Your task to perform on an android device: Go to calendar. Show me events next week Image 0: 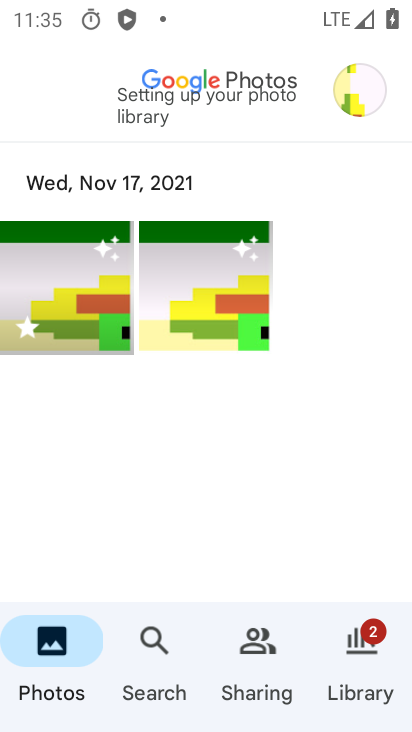
Step 0: press home button
Your task to perform on an android device: Go to calendar. Show me events next week Image 1: 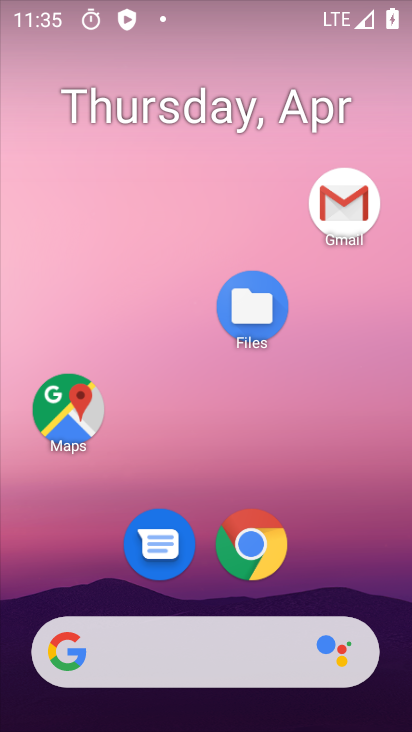
Step 1: drag from (227, 474) to (232, 35)
Your task to perform on an android device: Go to calendar. Show me events next week Image 2: 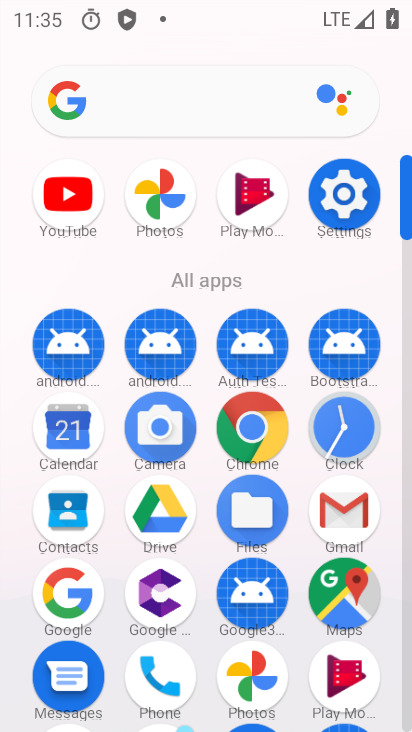
Step 2: click (76, 441)
Your task to perform on an android device: Go to calendar. Show me events next week Image 3: 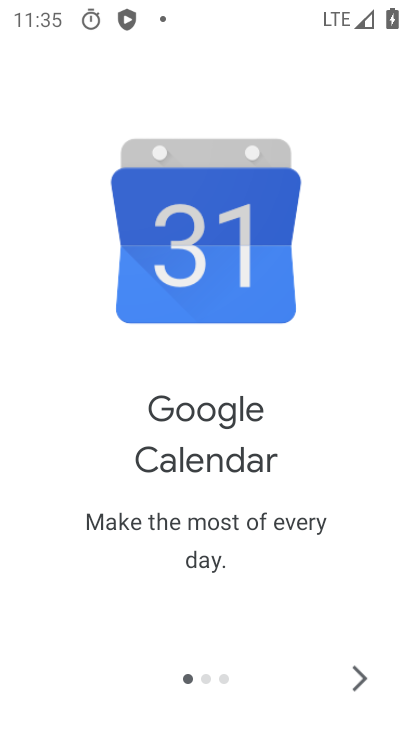
Step 3: click (368, 683)
Your task to perform on an android device: Go to calendar. Show me events next week Image 4: 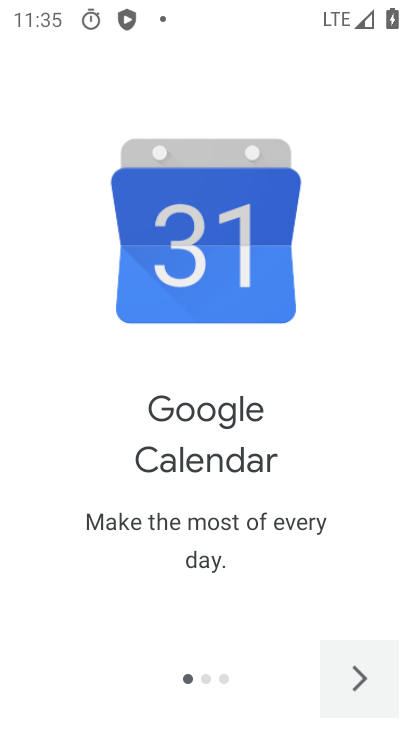
Step 4: click (368, 683)
Your task to perform on an android device: Go to calendar. Show me events next week Image 5: 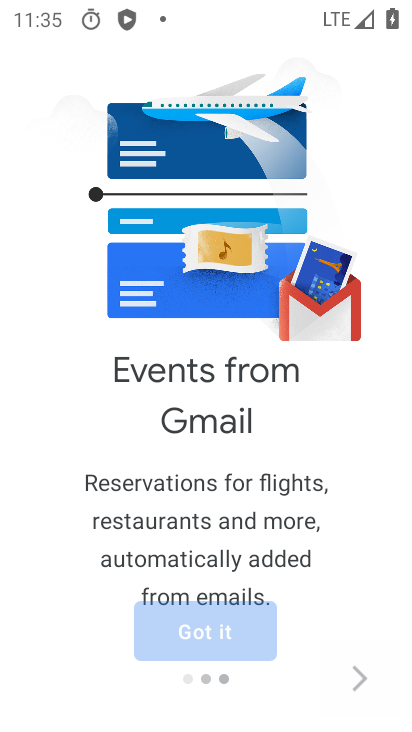
Step 5: click (368, 683)
Your task to perform on an android device: Go to calendar. Show me events next week Image 6: 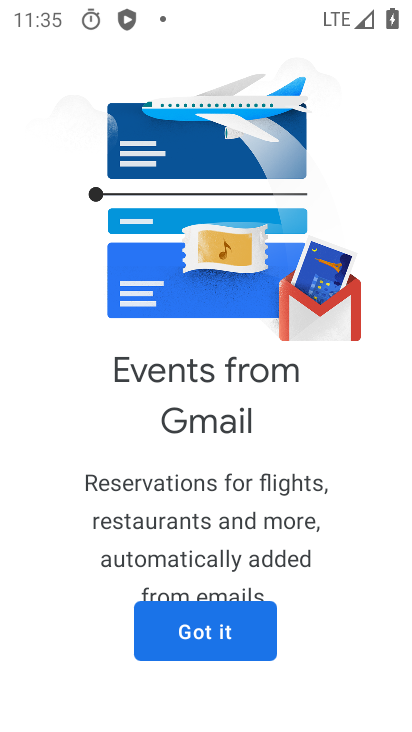
Step 6: click (221, 626)
Your task to perform on an android device: Go to calendar. Show me events next week Image 7: 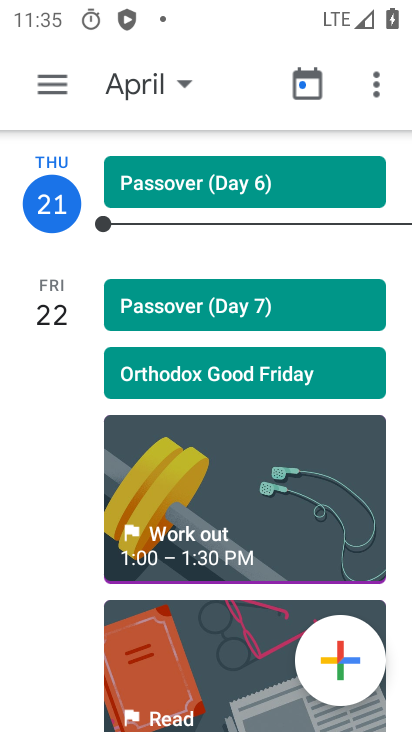
Step 7: click (64, 100)
Your task to perform on an android device: Go to calendar. Show me events next week Image 8: 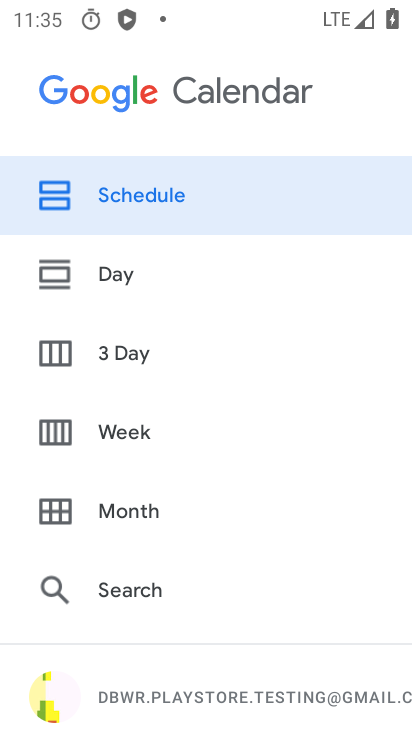
Step 8: click (150, 449)
Your task to perform on an android device: Go to calendar. Show me events next week Image 9: 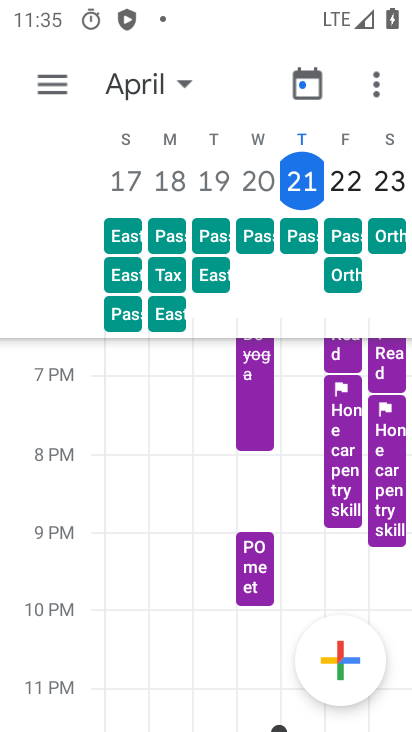
Step 9: task complete